Your task to perform on an android device: check battery use Image 0: 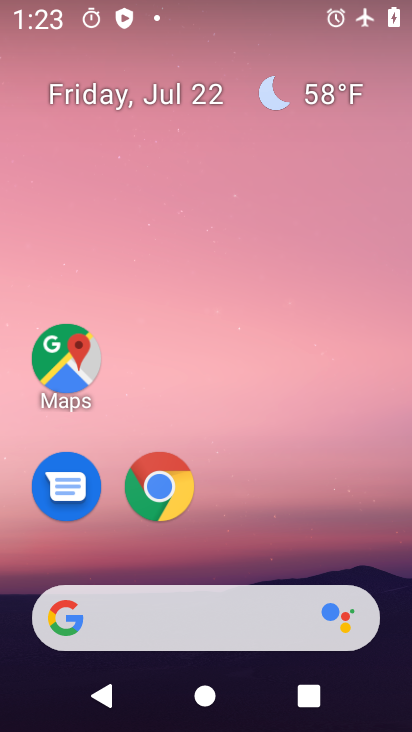
Step 0: press home button
Your task to perform on an android device: check battery use Image 1: 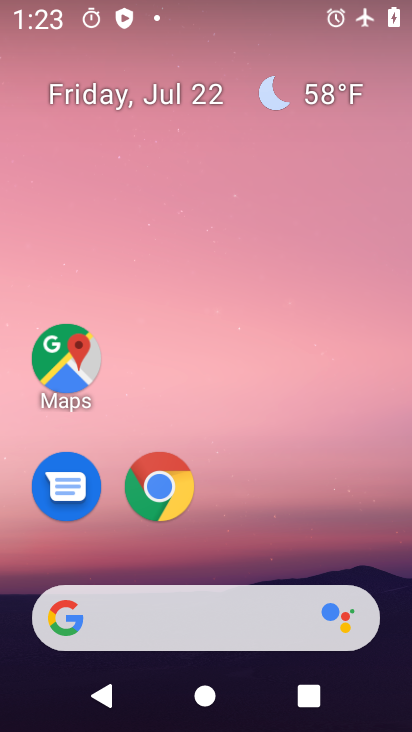
Step 1: drag from (333, 532) to (317, 82)
Your task to perform on an android device: check battery use Image 2: 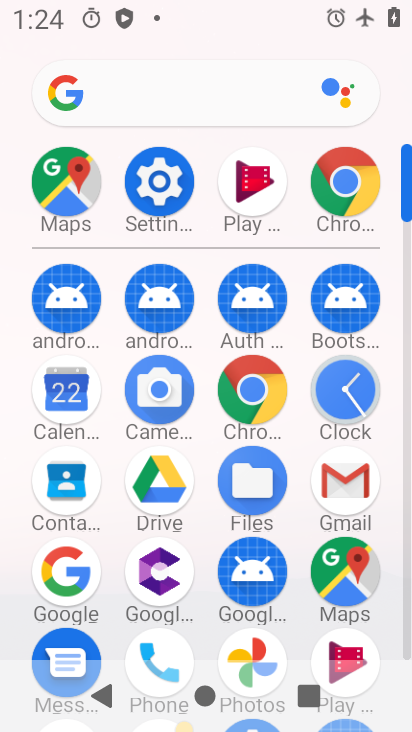
Step 2: click (158, 189)
Your task to perform on an android device: check battery use Image 3: 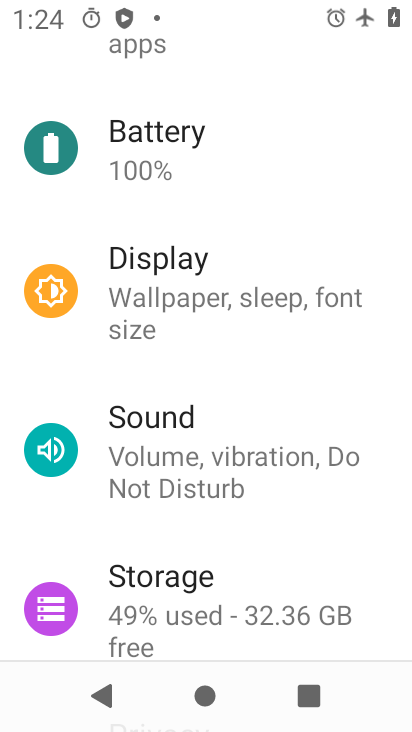
Step 3: drag from (336, 429) to (345, 342)
Your task to perform on an android device: check battery use Image 4: 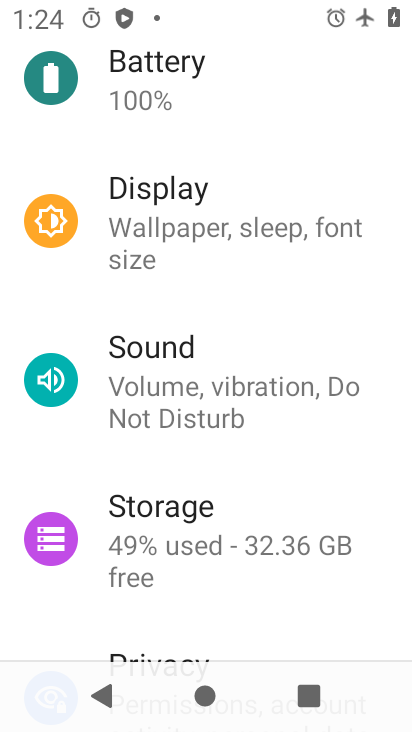
Step 4: drag from (346, 476) to (388, 279)
Your task to perform on an android device: check battery use Image 5: 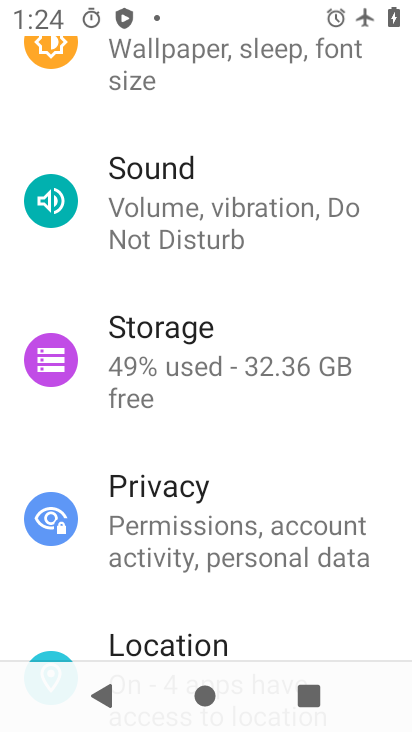
Step 5: drag from (356, 555) to (356, 395)
Your task to perform on an android device: check battery use Image 6: 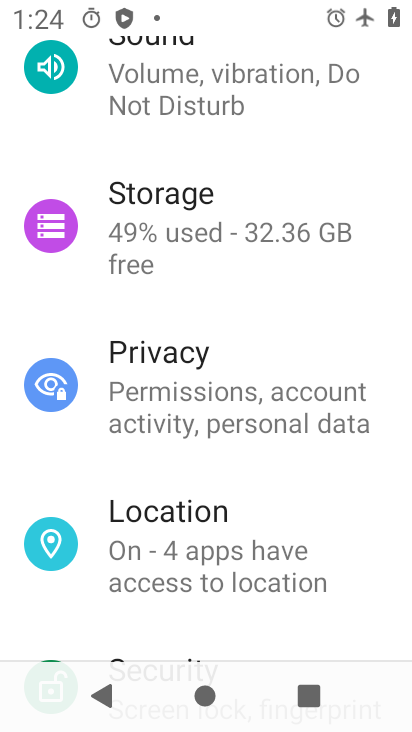
Step 6: drag from (358, 556) to (358, 433)
Your task to perform on an android device: check battery use Image 7: 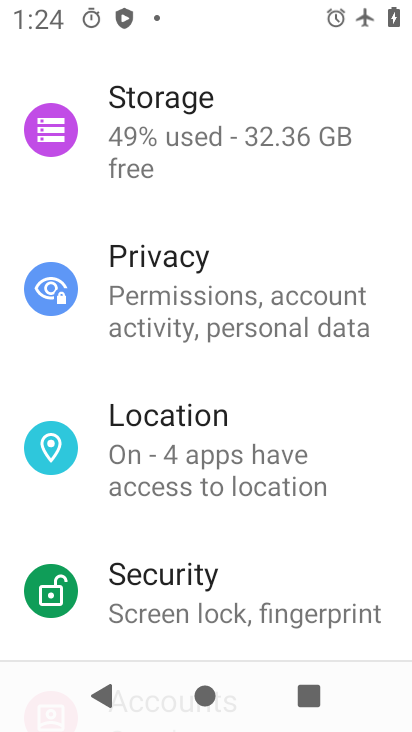
Step 7: drag from (359, 531) to (369, 399)
Your task to perform on an android device: check battery use Image 8: 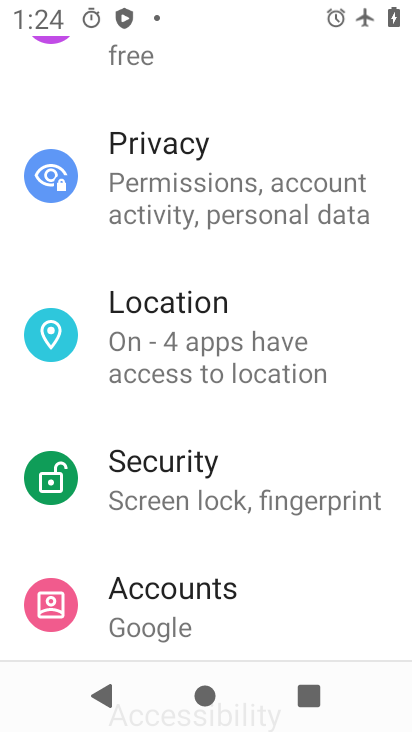
Step 8: drag from (350, 568) to (350, 513)
Your task to perform on an android device: check battery use Image 9: 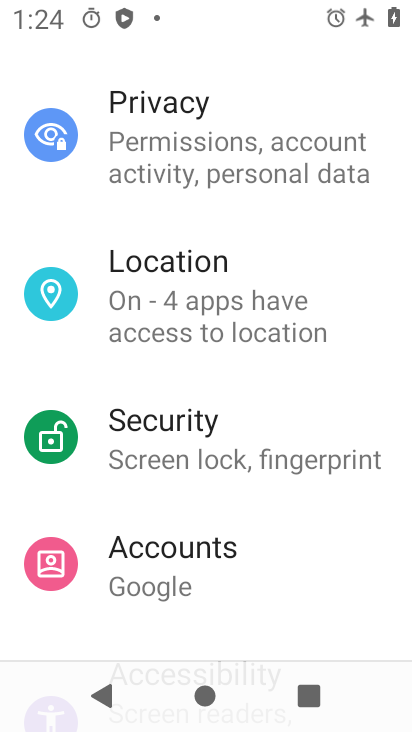
Step 9: drag from (365, 600) to (356, 466)
Your task to perform on an android device: check battery use Image 10: 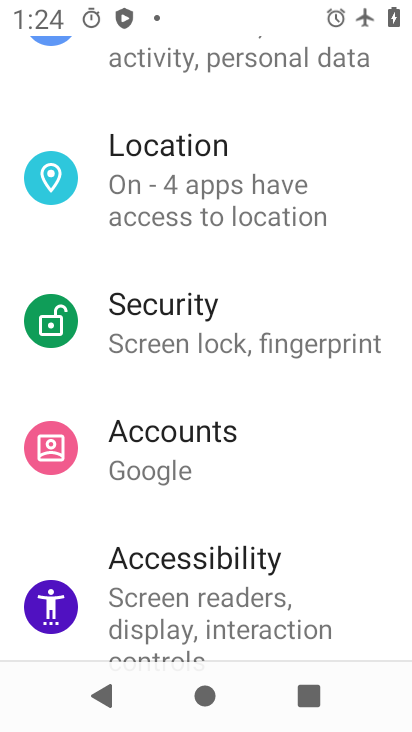
Step 10: drag from (341, 543) to (340, 494)
Your task to perform on an android device: check battery use Image 11: 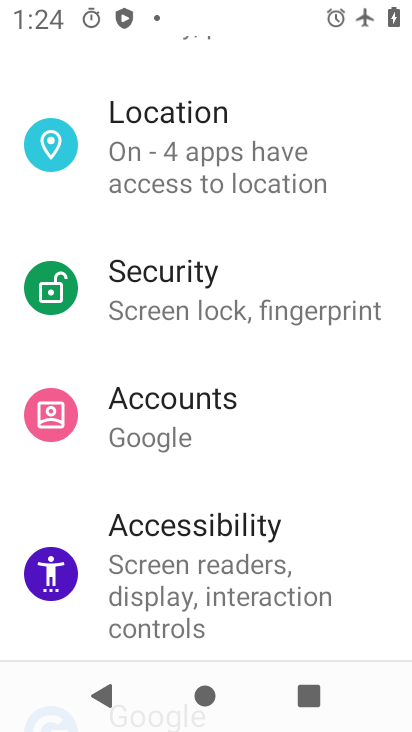
Step 11: drag from (356, 545) to (355, 413)
Your task to perform on an android device: check battery use Image 12: 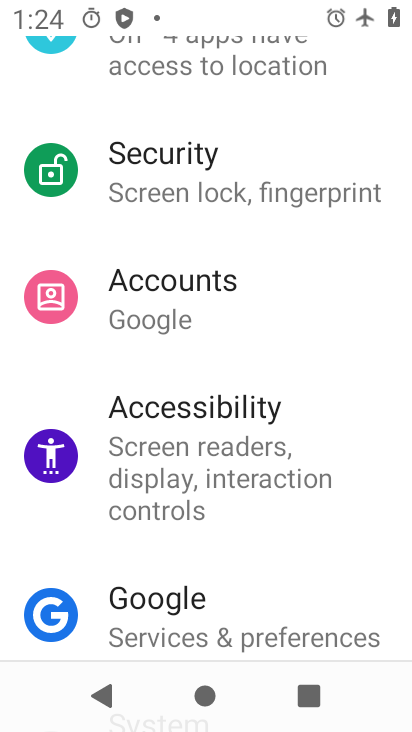
Step 12: drag from (360, 299) to (360, 424)
Your task to perform on an android device: check battery use Image 13: 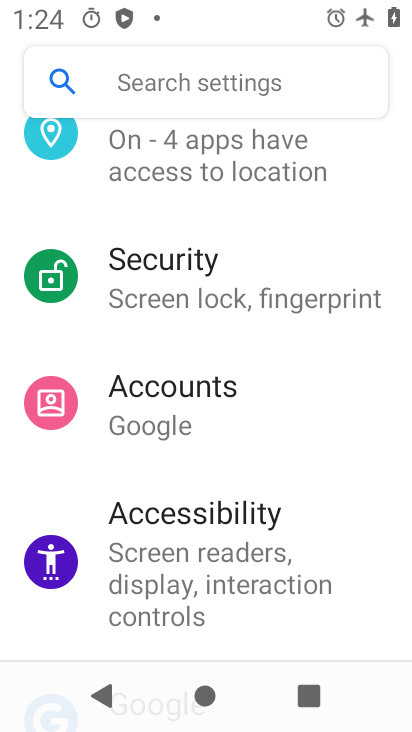
Step 13: drag from (350, 326) to (346, 458)
Your task to perform on an android device: check battery use Image 14: 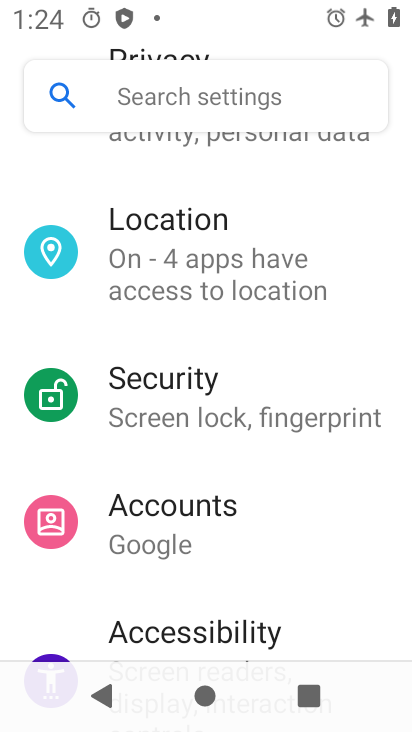
Step 14: drag from (346, 293) to (347, 422)
Your task to perform on an android device: check battery use Image 15: 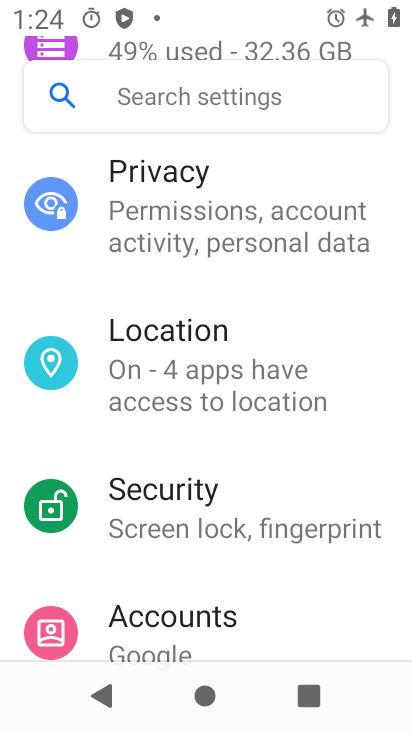
Step 15: drag from (347, 318) to (351, 450)
Your task to perform on an android device: check battery use Image 16: 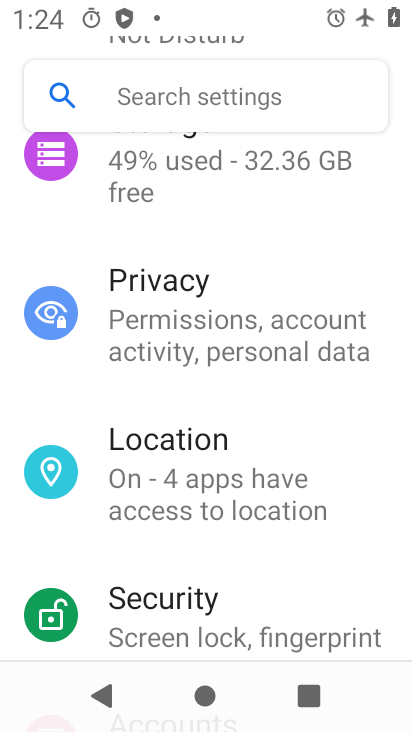
Step 16: drag from (352, 249) to (354, 383)
Your task to perform on an android device: check battery use Image 17: 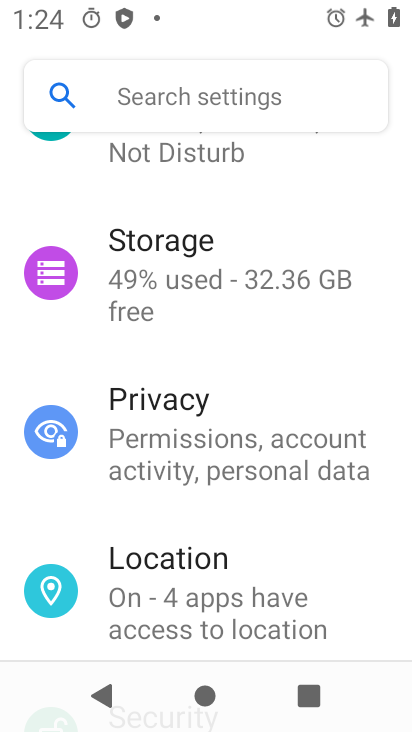
Step 17: drag from (355, 241) to (356, 359)
Your task to perform on an android device: check battery use Image 18: 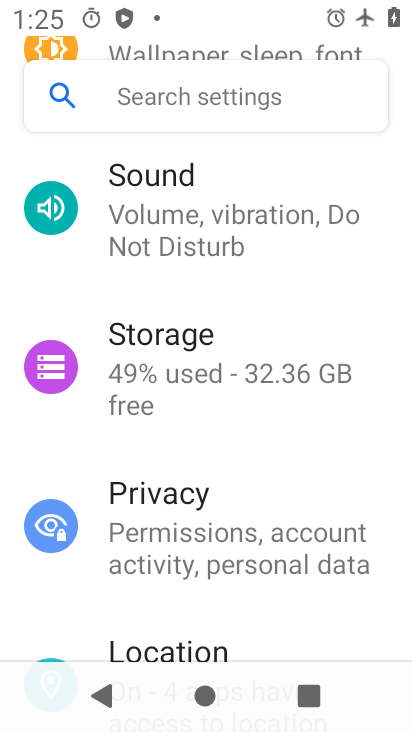
Step 18: drag from (355, 282) to (357, 378)
Your task to perform on an android device: check battery use Image 19: 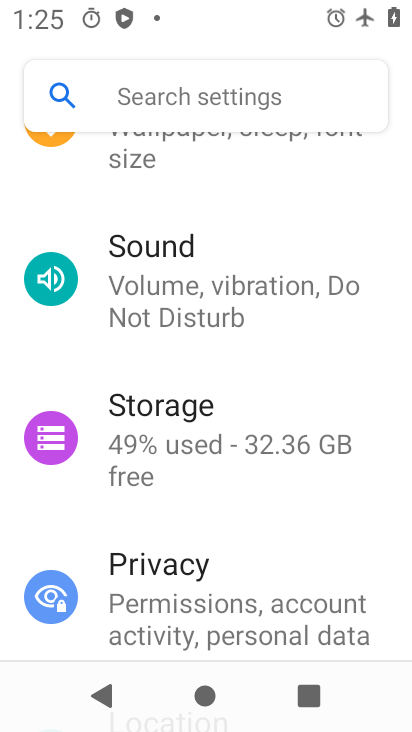
Step 19: drag from (353, 202) to (364, 328)
Your task to perform on an android device: check battery use Image 20: 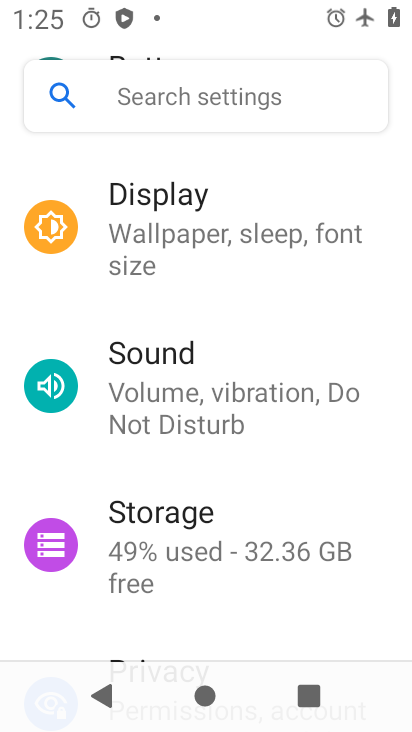
Step 20: drag from (359, 198) to (363, 391)
Your task to perform on an android device: check battery use Image 21: 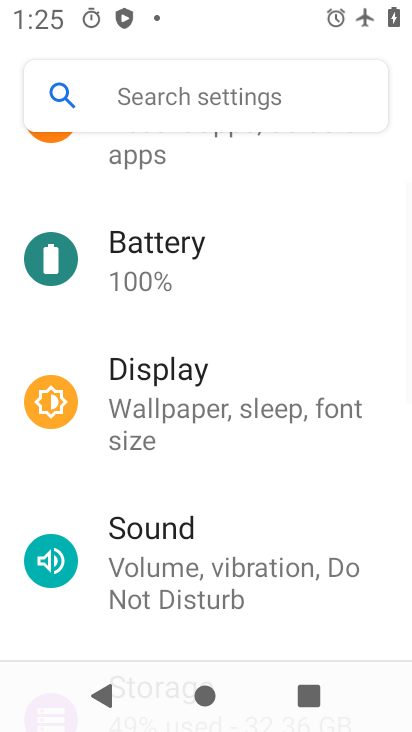
Step 21: click (318, 261)
Your task to perform on an android device: check battery use Image 22: 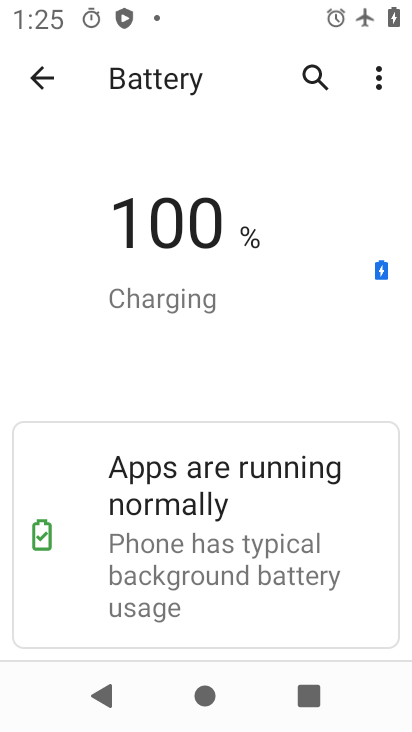
Step 22: click (379, 85)
Your task to perform on an android device: check battery use Image 23: 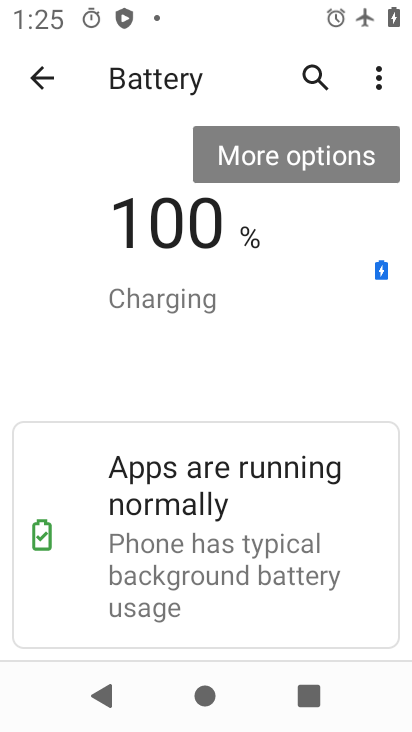
Step 23: click (374, 79)
Your task to perform on an android device: check battery use Image 24: 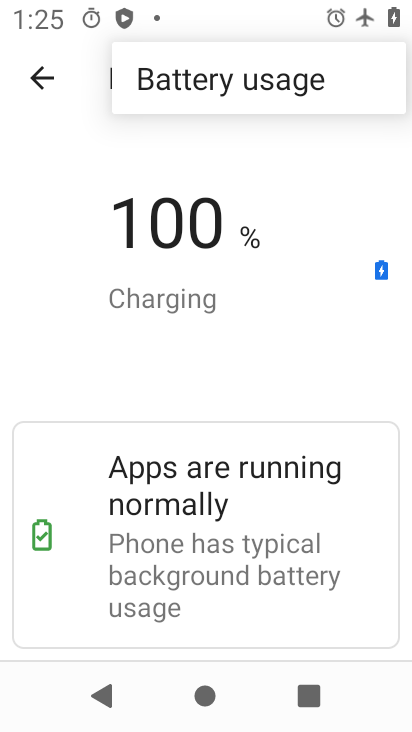
Step 24: click (335, 75)
Your task to perform on an android device: check battery use Image 25: 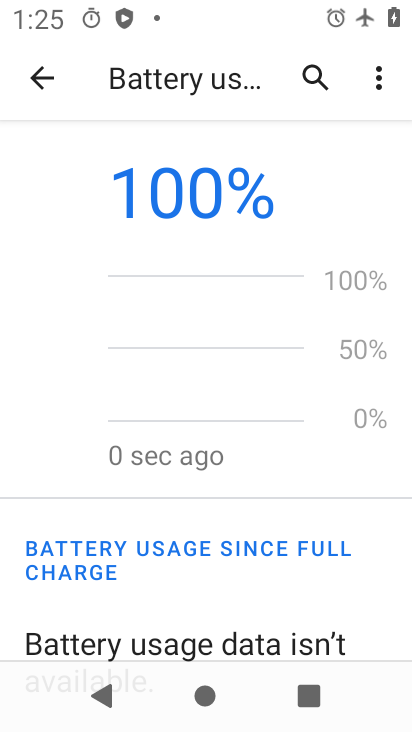
Step 25: task complete